Your task to perform on an android device: Turn off the flashlight Image 0: 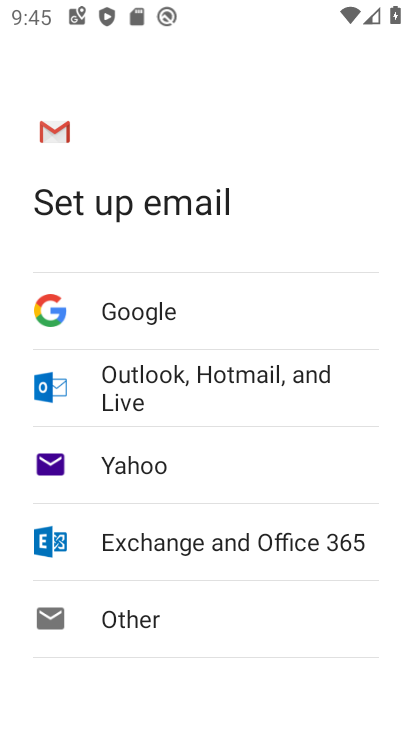
Step 0: press home button
Your task to perform on an android device: Turn off the flashlight Image 1: 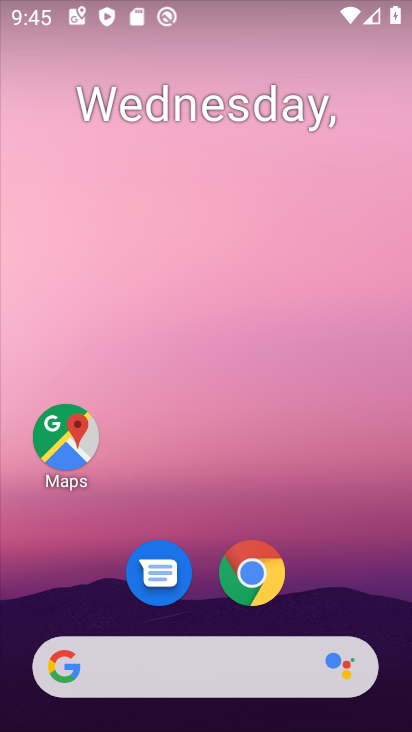
Step 1: drag from (375, 402) to (376, 319)
Your task to perform on an android device: Turn off the flashlight Image 2: 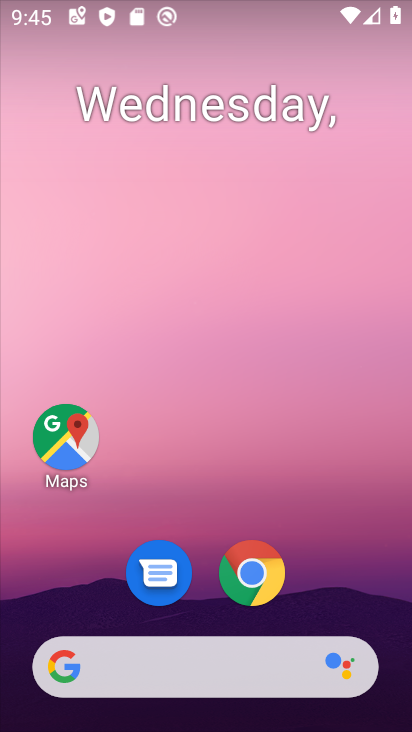
Step 2: drag from (369, 425) to (351, 87)
Your task to perform on an android device: Turn off the flashlight Image 3: 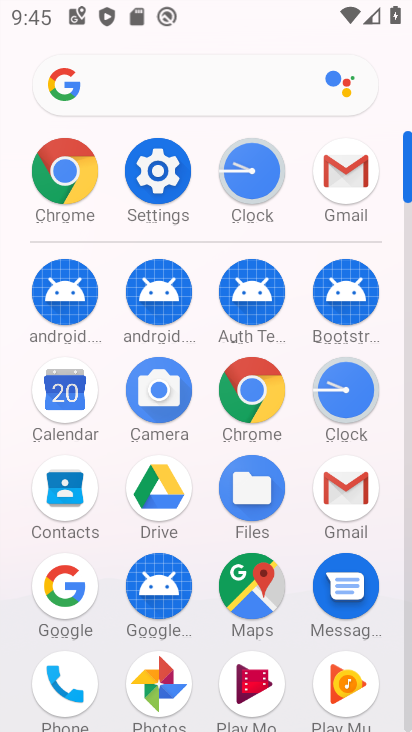
Step 3: click (173, 165)
Your task to perform on an android device: Turn off the flashlight Image 4: 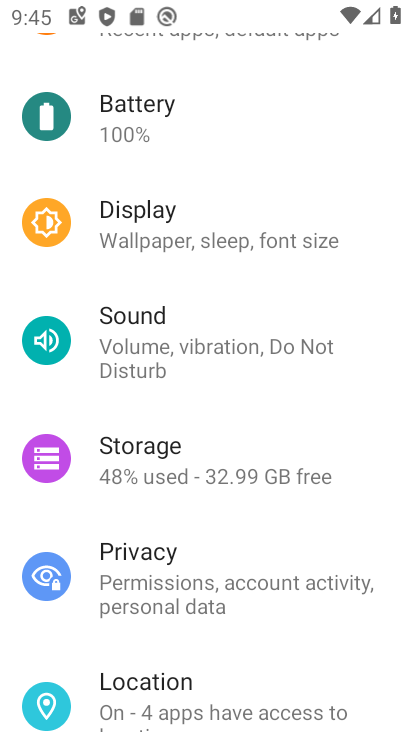
Step 4: click (132, 210)
Your task to perform on an android device: Turn off the flashlight Image 5: 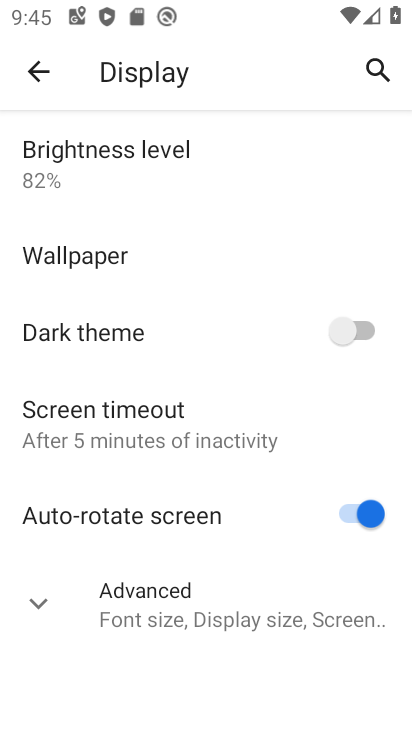
Step 5: task complete